Your task to perform on an android device: Open calendar and show me the first week of next month Image 0: 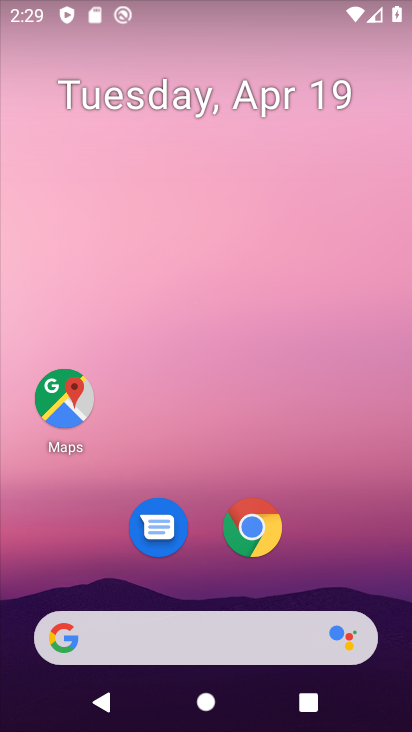
Step 0: drag from (268, 298) to (319, 201)
Your task to perform on an android device: Open calendar and show me the first week of next month Image 1: 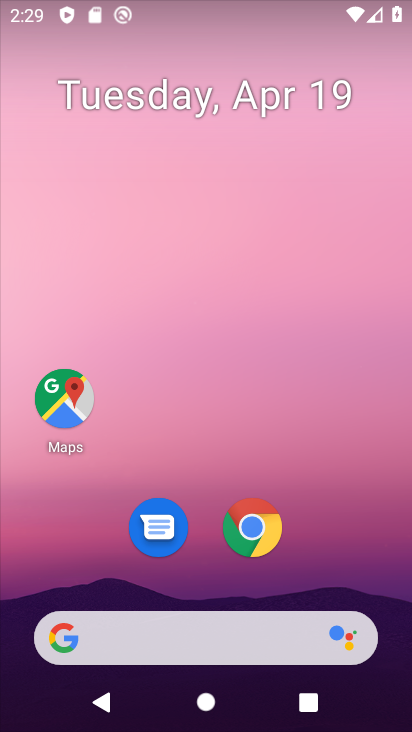
Step 1: drag from (167, 599) to (315, 53)
Your task to perform on an android device: Open calendar and show me the first week of next month Image 2: 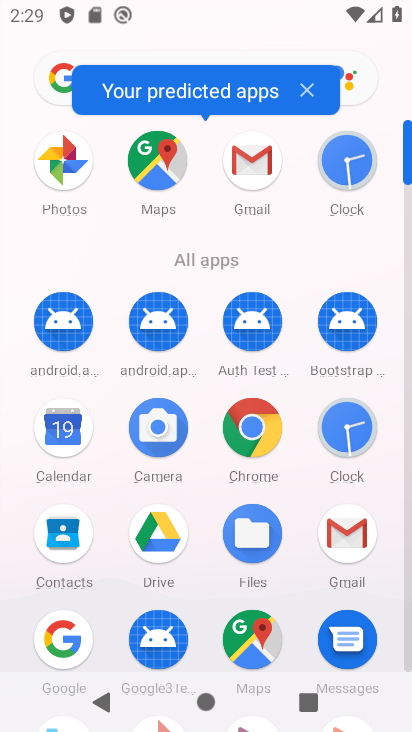
Step 2: click (62, 443)
Your task to perform on an android device: Open calendar and show me the first week of next month Image 3: 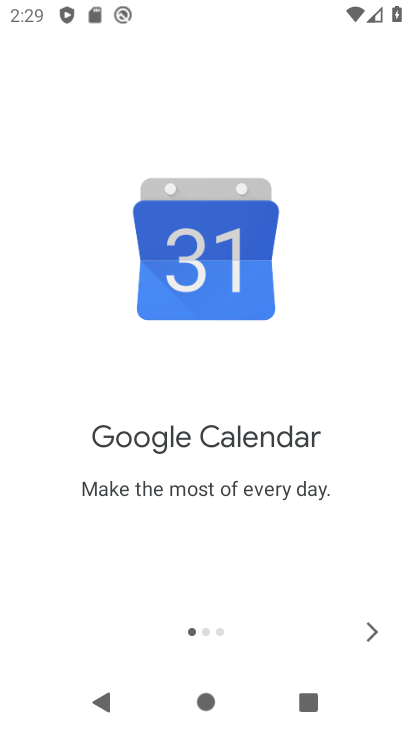
Step 3: click (368, 643)
Your task to perform on an android device: Open calendar and show me the first week of next month Image 4: 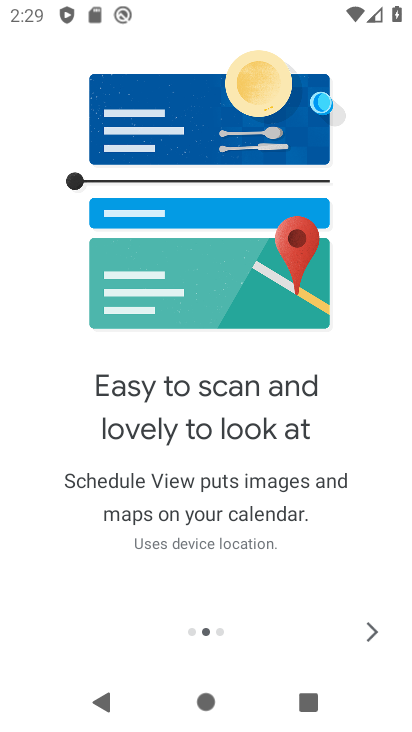
Step 4: click (368, 641)
Your task to perform on an android device: Open calendar and show me the first week of next month Image 5: 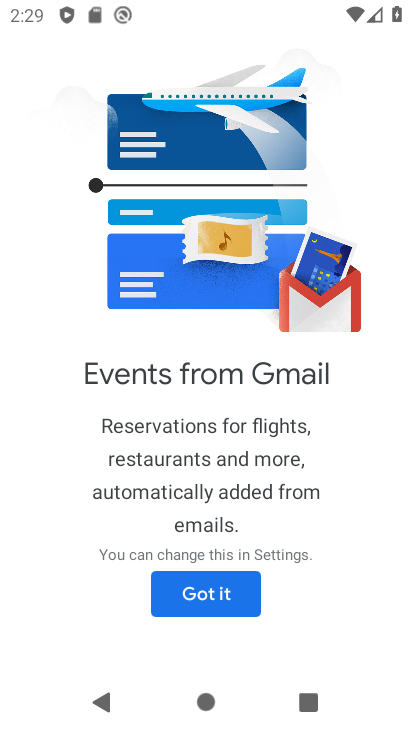
Step 5: click (368, 641)
Your task to perform on an android device: Open calendar and show me the first week of next month Image 6: 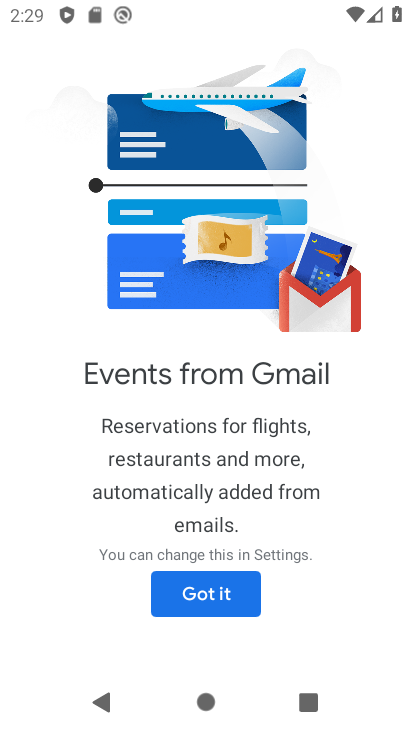
Step 6: click (231, 607)
Your task to perform on an android device: Open calendar and show me the first week of next month Image 7: 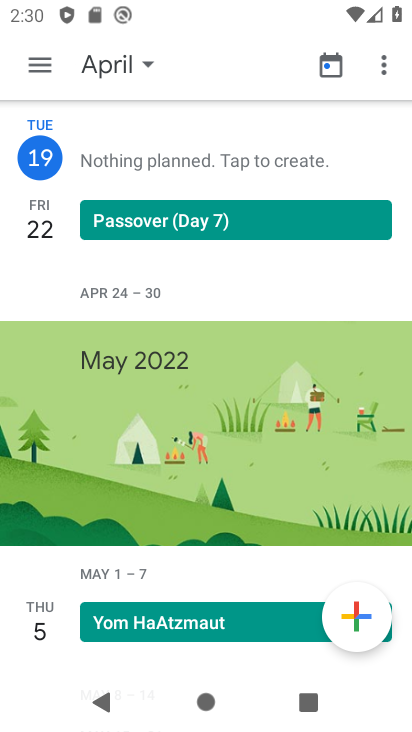
Step 7: click (115, 71)
Your task to perform on an android device: Open calendar and show me the first week of next month Image 8: 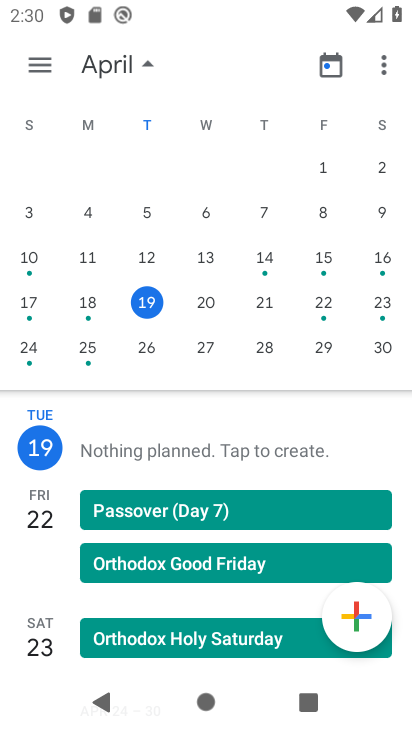
Step 8: drag from (333, 300) to (2, 157)
Your task to perform on an android device: Open calendar and show me the first week of next month Image 9: 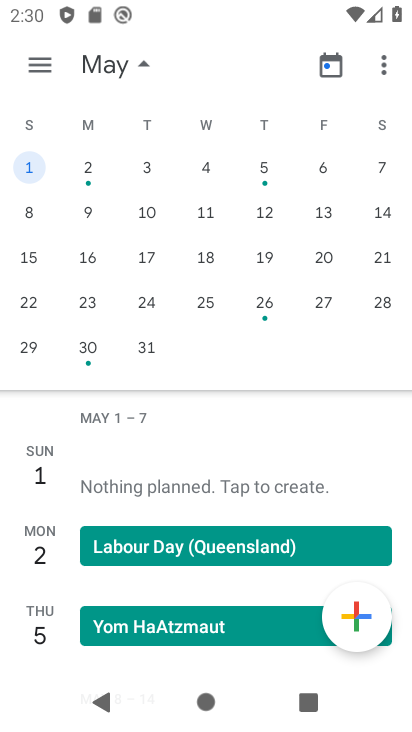
Step 9: click (30, 165)
Your task to perform on an android device: Open calendar and show me the first week of next month Image 10: 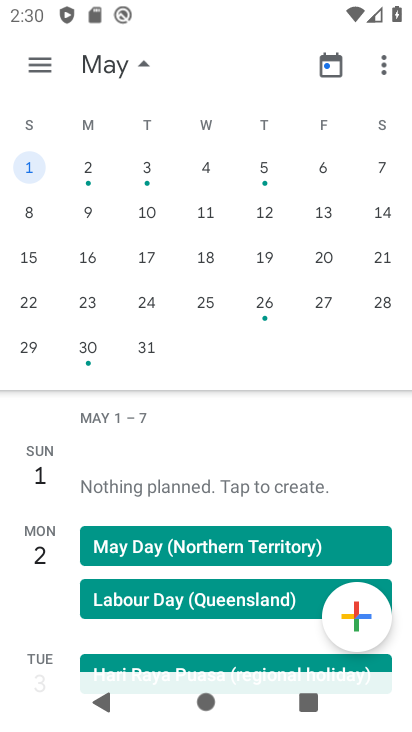
Step 10: click (147, 61)
Your task to perform on an android device: Open calendar and show me the first week of next month Image 11: 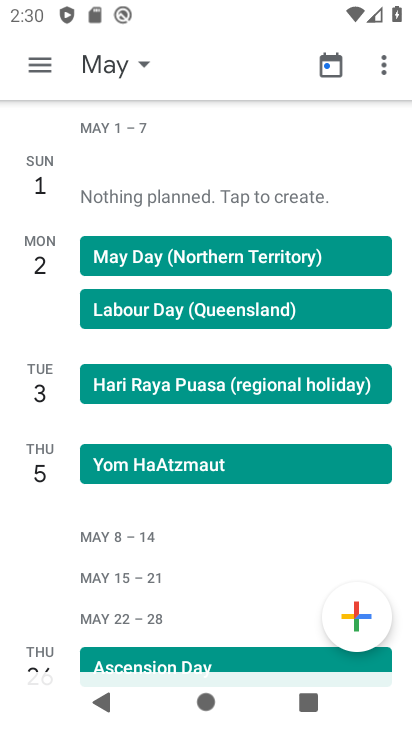
Step 11: click (32, 58)
Your task to perform on an android device: Open calendar and show me the first week of next month Image 12: 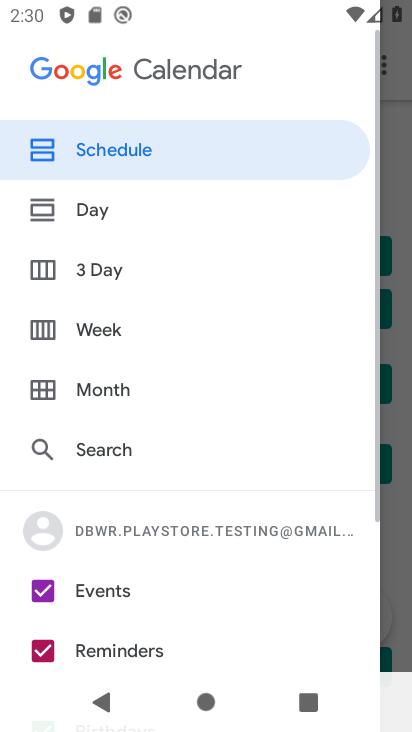
Step 12: click (101, 326)
Your task to perform on an android device: Open calendar and show me the first week of next month Image 13: 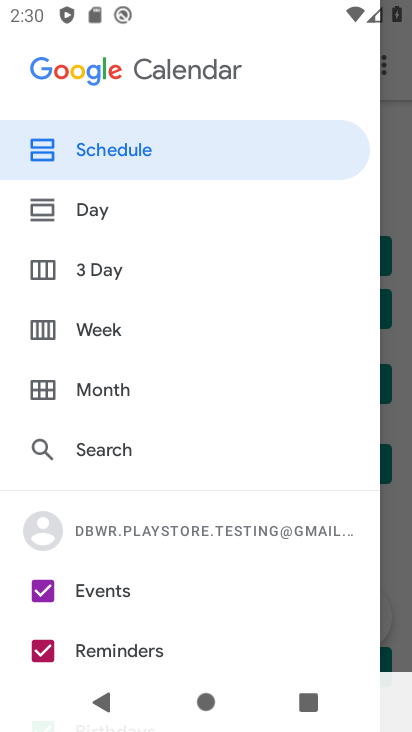
Step 13: click (122, 333)
Your task to perform on an android device: Open calendar and show me the first week of next month Image 14: 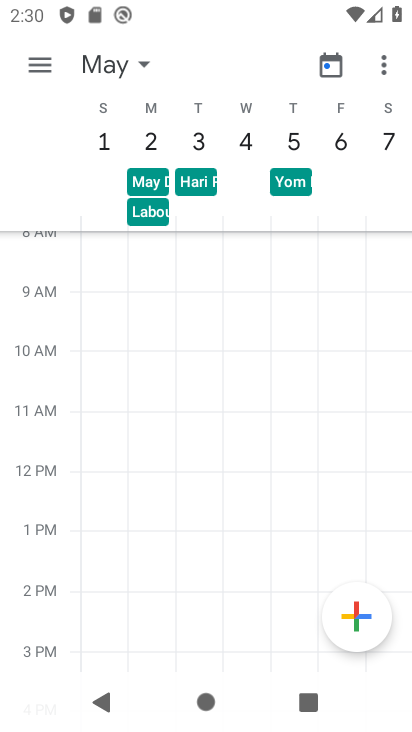
Step 14: task complete